Your task to perform on an android device: read, delete, or share a saved page in the chrome app Image 0: 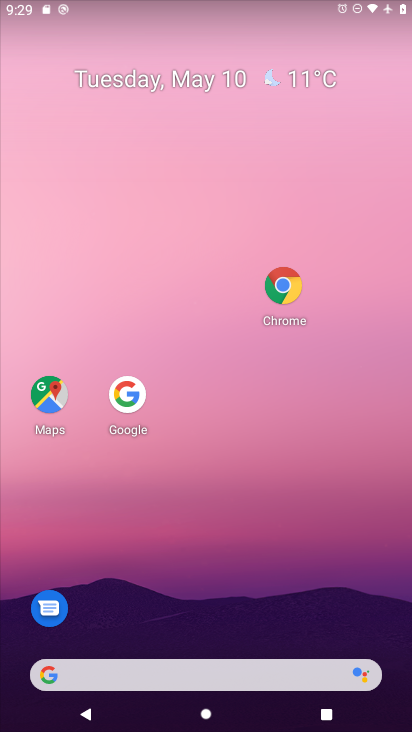
Step 0: drag from (153, 679) to (325, 170)
Your task to perform on an android device: read, delete, or share a saved page in the chrome app Image 1: 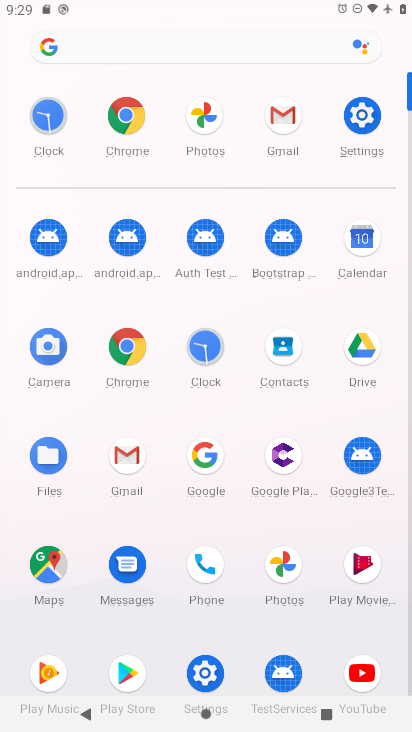
Step 1: click (122, 122)
Your task to perform on an android device: read, delete, or share a saved page in the chrome app Image 2: 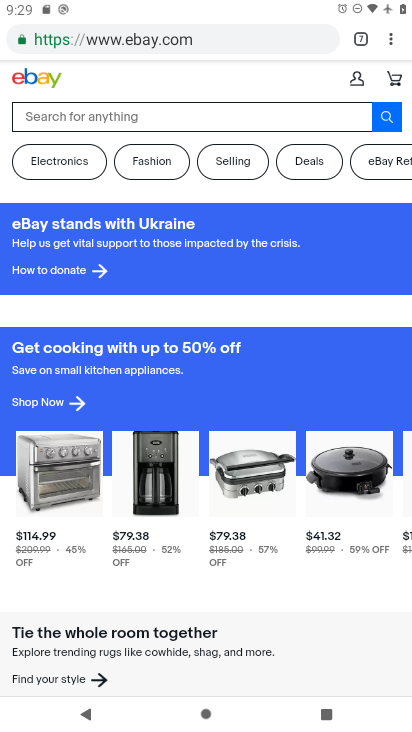
Step 2: drag from (392, 36) to (277, 259)
Your task to perform on an android device: read, delete, or share a saved page in the chrome app Image 3: 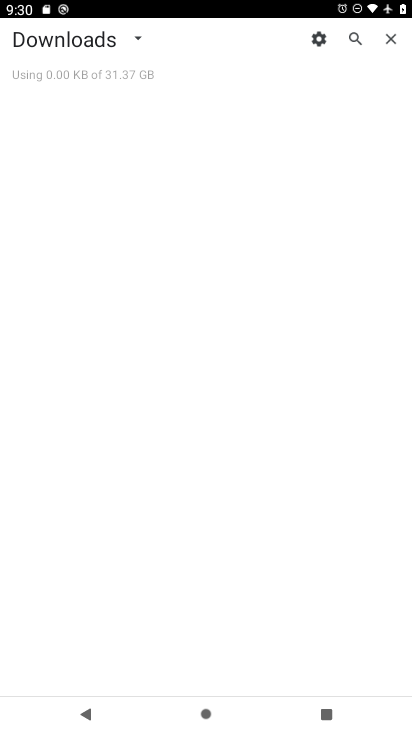
Step 3: click (137, 35)
Your task to perform on an android device: read, delete, or share a saved page in the chrome app Image 4: 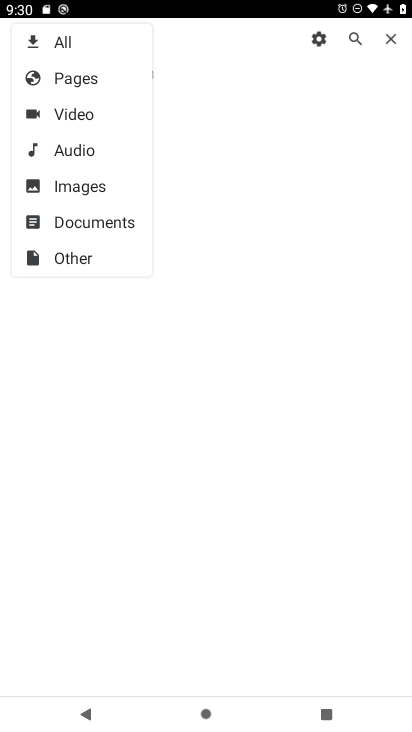
Step 4: click (92, 79)
Your task to perform on an android device: read, delete, or share a saved page in the chrome app Image 5: 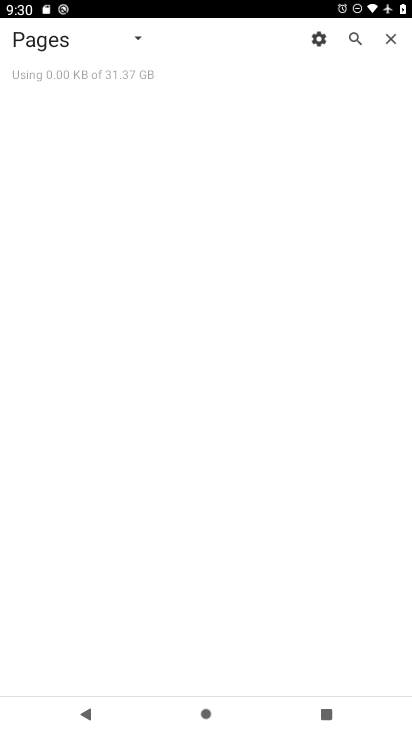
Step 5: task complete